Your task to perform on an android device: change keyboard looks Image 0: 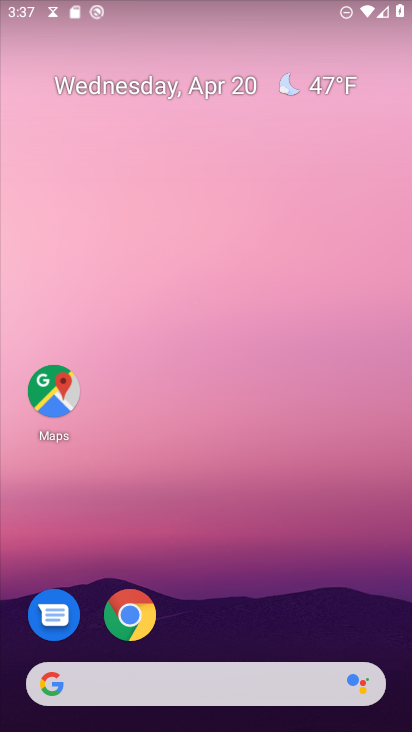
Step 0: drag from (253, 580) to (193, 82)
Your task to perform on an android device: change keyboard looks Image 1: 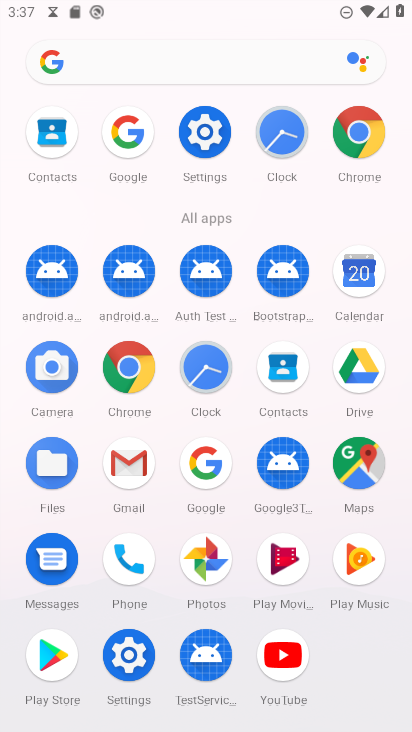
Step 1: click (192, 138)
Your task to perform on an android device: change keyboard looks Image 2: 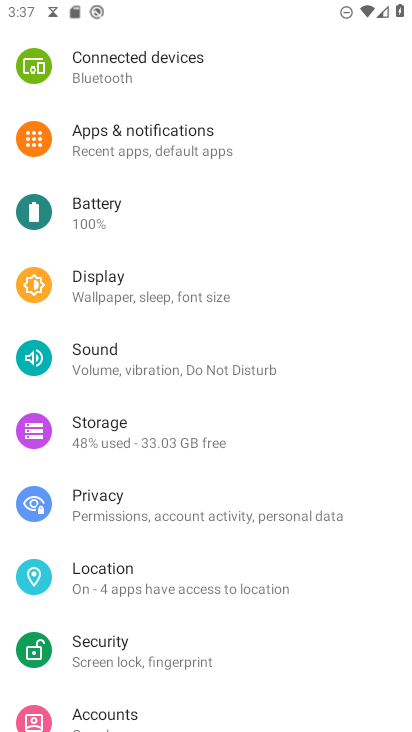
Step 2: drag from (215, 627) to (203, 145)
Your task to perform on an android device: change keyboard looks Image 3: 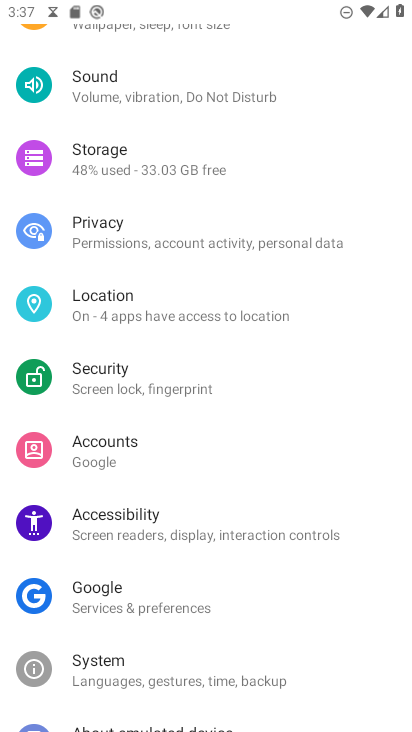
Step 3: drag from (272, 663) to (257, 283)
Your task to perform on an android device: change keyboard looks Image 4: 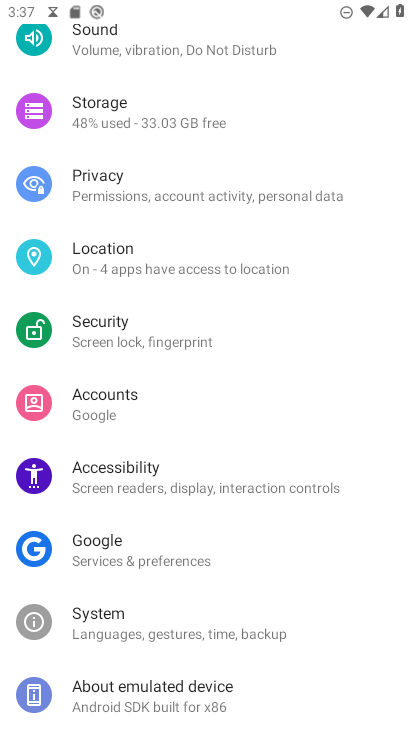
Step 4: click (130, 619)
Your task to perform on an android device: change keyboard looks Image 5: 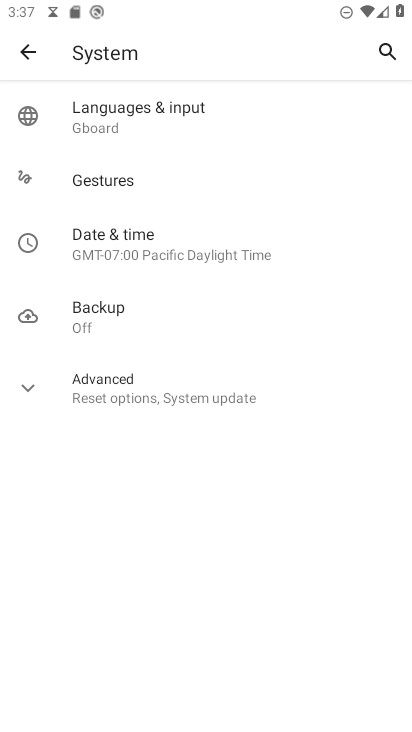
Step 5: click (113, 175)
Your task to perform on an android device: change keyboard looks Image 6: 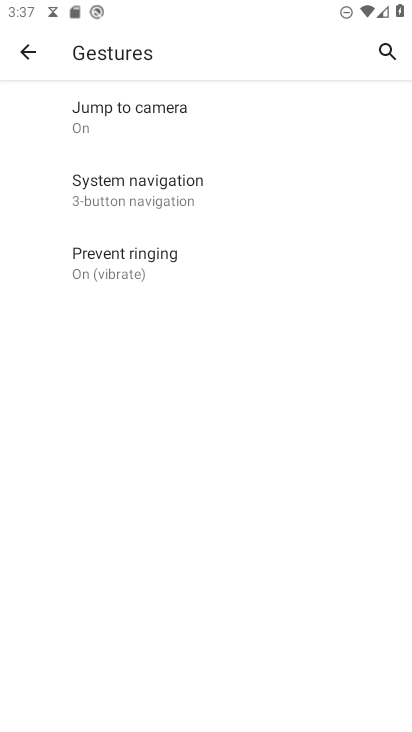
Step 6: click (30, 47)
Your task to perform on an android device: change keyboard looks Image 7: 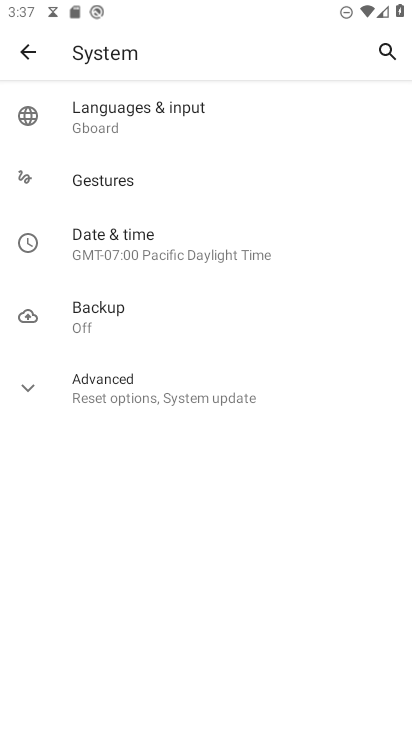
Step 7: click (146, 112)
Your task to perform on an android device: change keyboard looks Image 8: 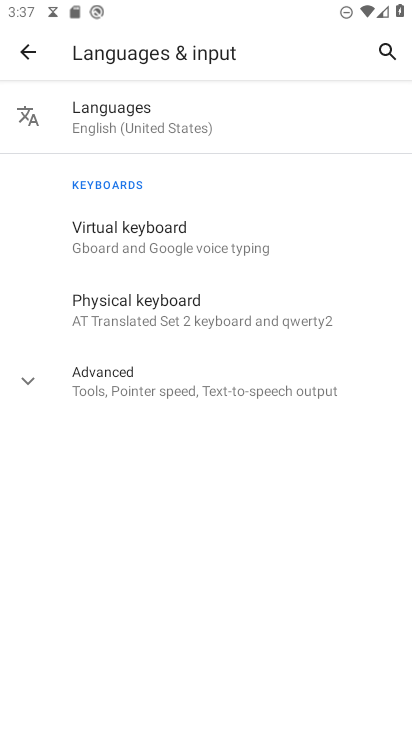
Step 8: click (161, 222)
Your task to perform on an android device: change keyboard looks Image 9: 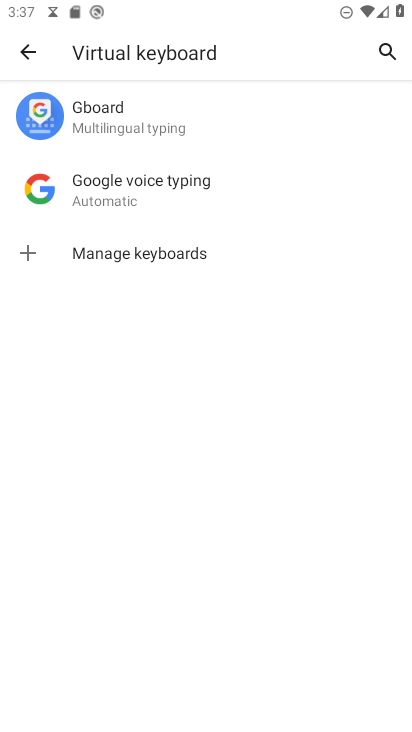
Step 9: click (129, 125)
Your task to perform on an android device: change keyboard looks Image 10: 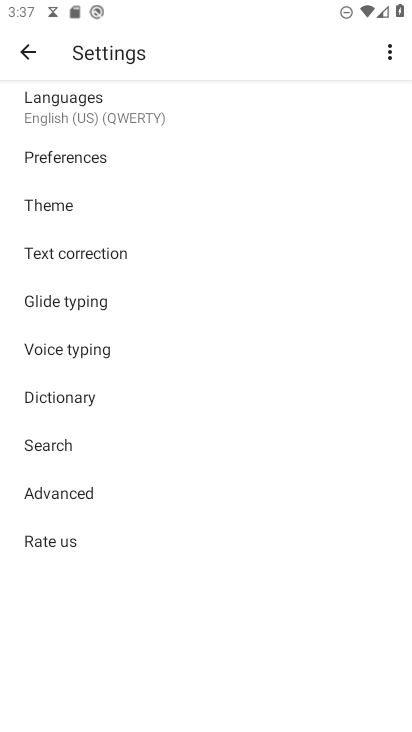
Step 10: click (45, 207)
Your task to perform on an android device: change keyboard looks Image 11: 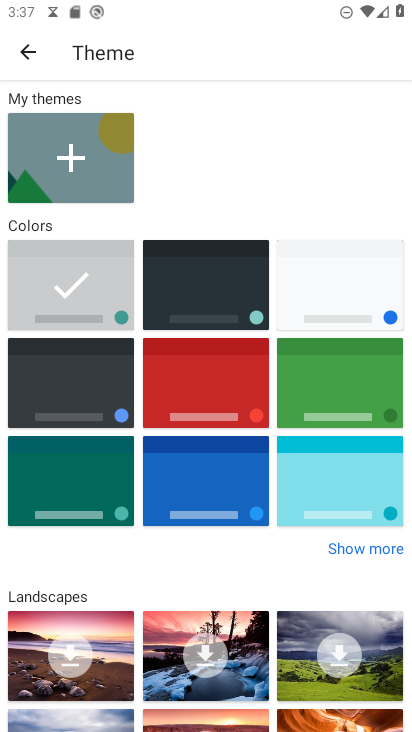
Step 11: click (190, 262)
Your task to perform on an android device: change keyboard looks Image 12: 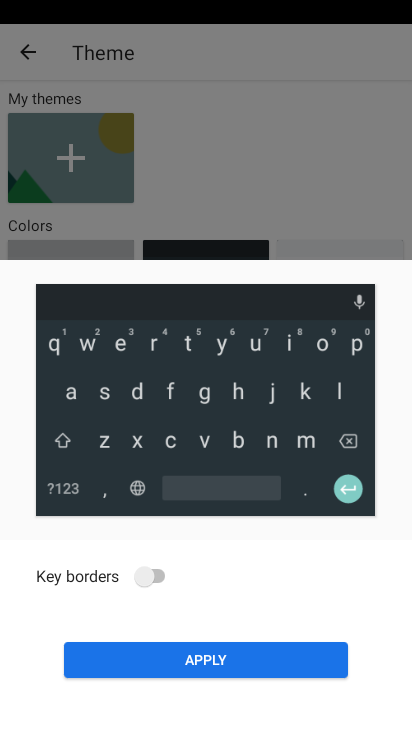
Step 12: click (157, 575)
Your task to perform on an android device: change keyboard looks Image 13: 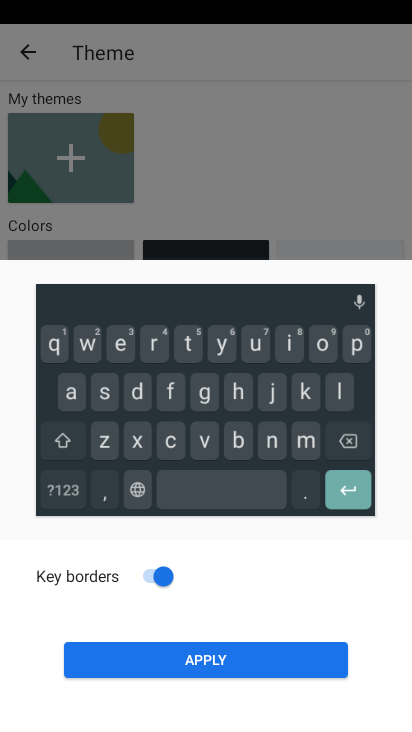
Step 13: click (208, 656)
Your task to perform on an android device: change keyboard looks Image 14: 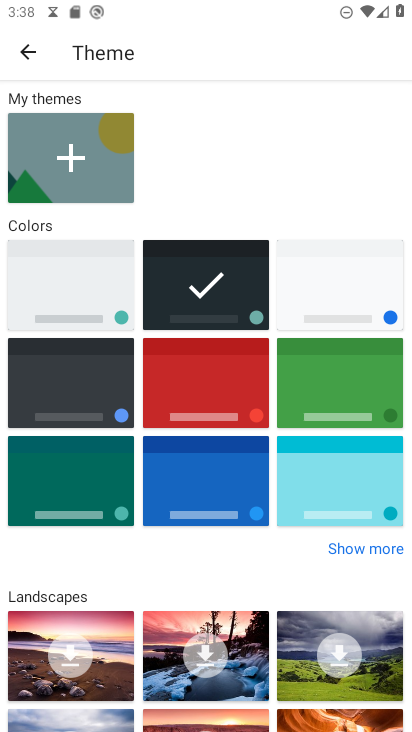
Step 14: task complete